Your task to perform on an android device: turn on location history Image 0: 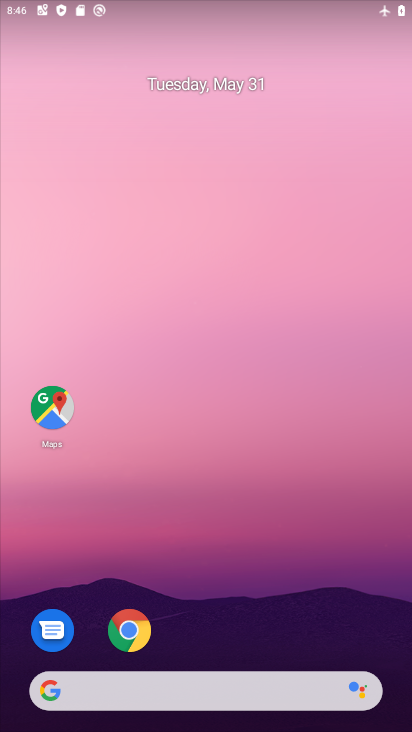
Step 0: drag from (290, 590) to (332, 259)
Your task to perform on an android device: turn on location history Image 1: 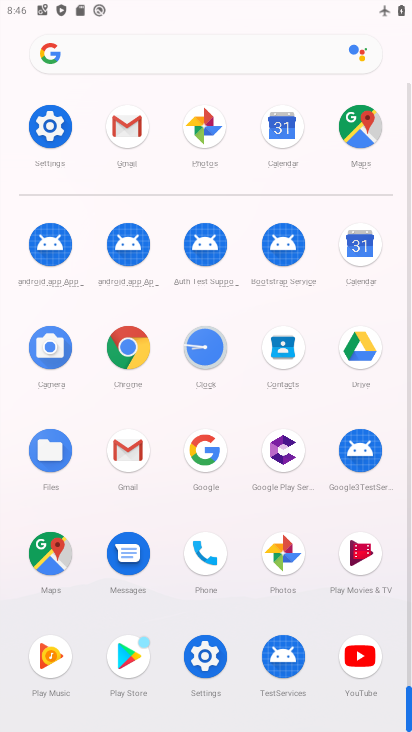
Step 1: click (51, 544)
Your task to perform on an android device: turn on location history Image 2: 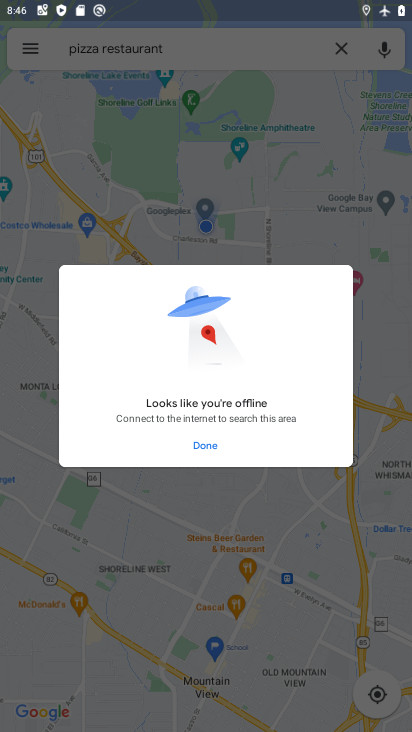
Step 2: click (203, 453)
Your task to perform on an android device: turn on location history Image 3: 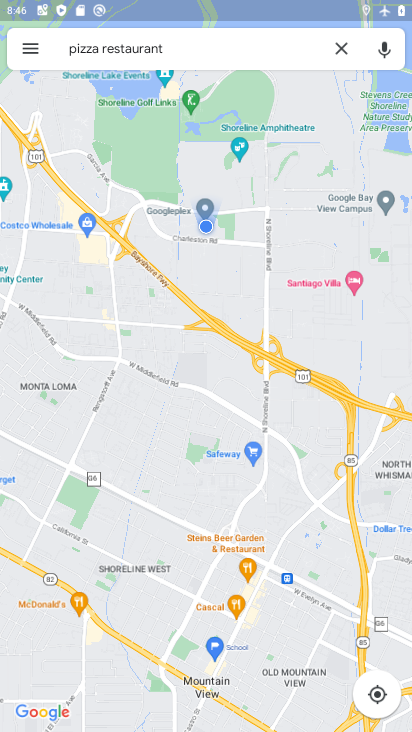
Step 3: click (18, 50)
Your task to perform on an android device: turn on location history Image 4: 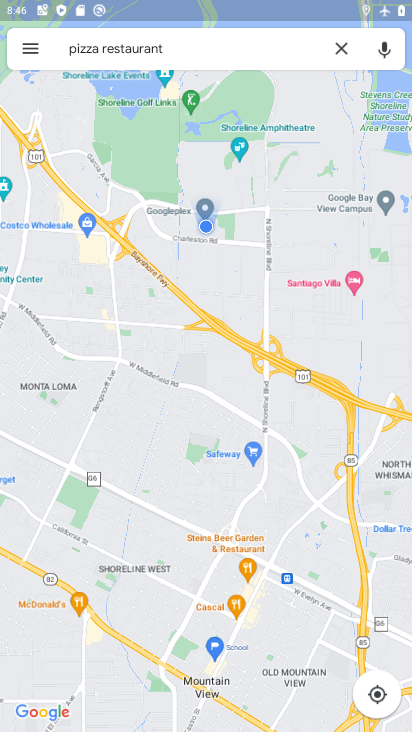
Step 4: click (31, 34)
Your task to perform on an android device: turn on location history Image 5: 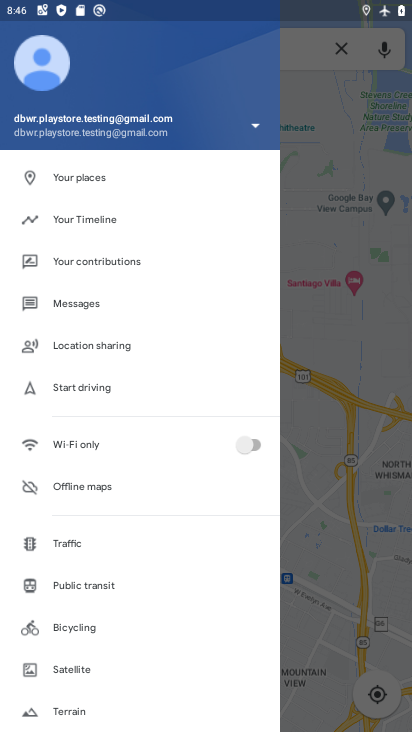
Step 5: click (88, 222)
Your task to perform on an android device: turn on location history Image 6: 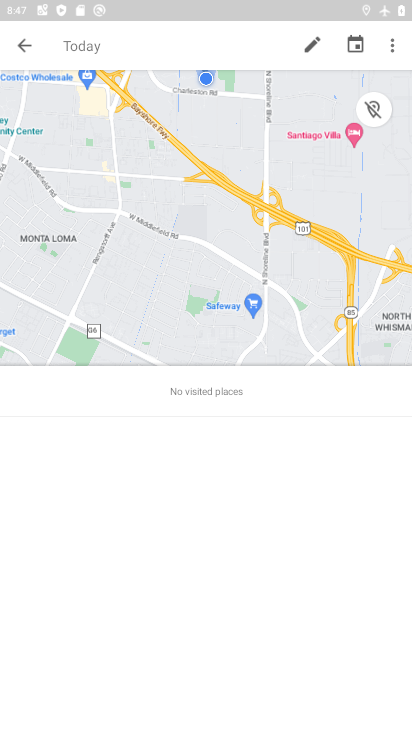
Step 6: click (387, 42)
Your task to perform on an android device: turn on location history Image 7: 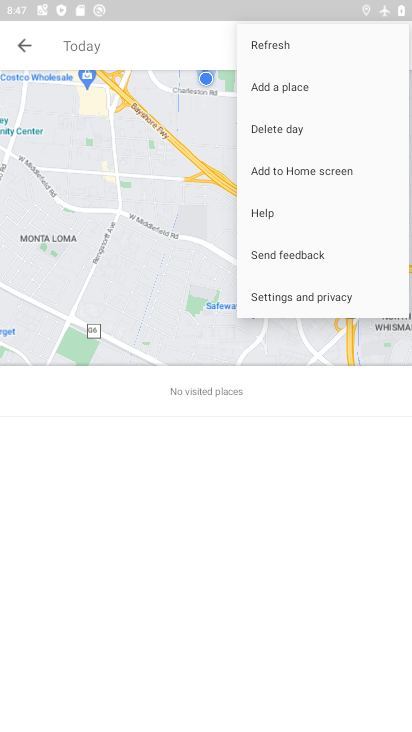
Step 7: click (308, 300)
Your task to perform on an android device: turn on location history Image 8: 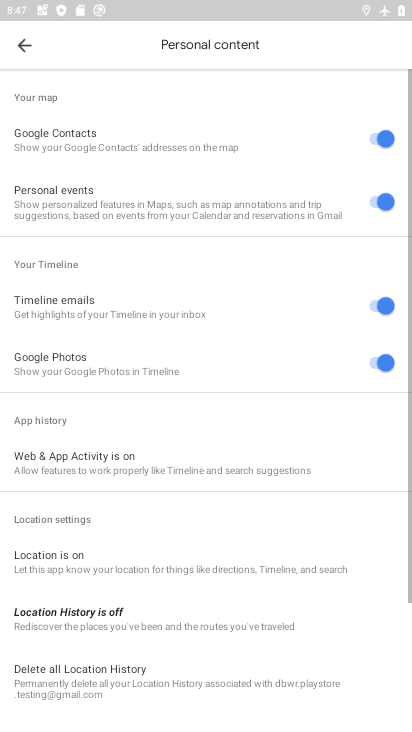
Step 8: click (152, 622)
Your task to perform on an android device: turn on location history Image 9: 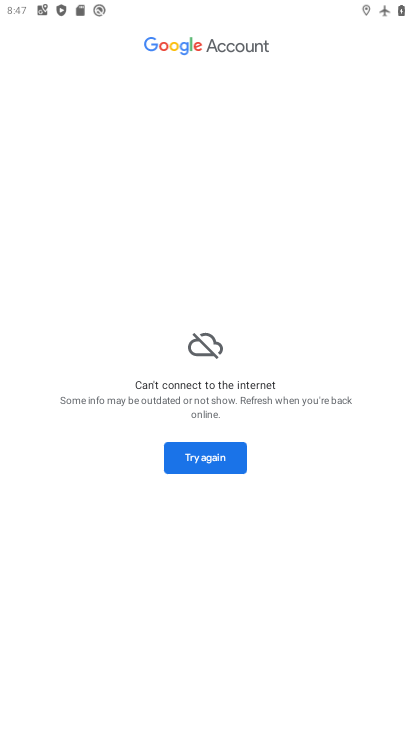
Step 9: click (153, 620)
Your task to perform on an android device: turn on location history Image 10: 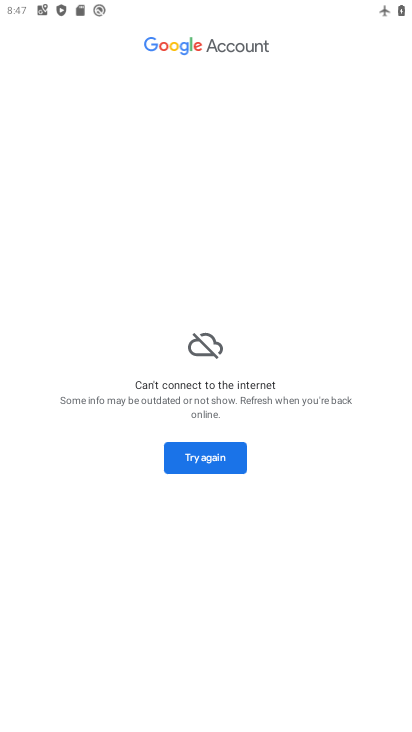
Step 10: click (183, 464)
Your task to perform on an android device: turn on location history Image 11: 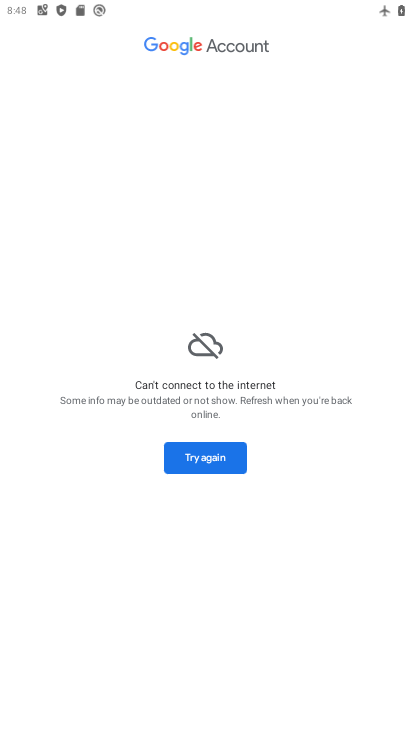
Step 11: task complete